Your task to perform on an android device: Go to notification settings Image 0: 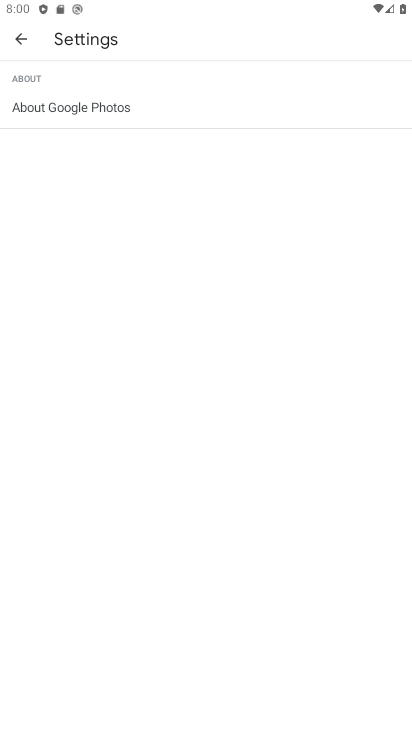
Step 0: press home button
Your task to perform on an android device: Go to notification settings Image 1: 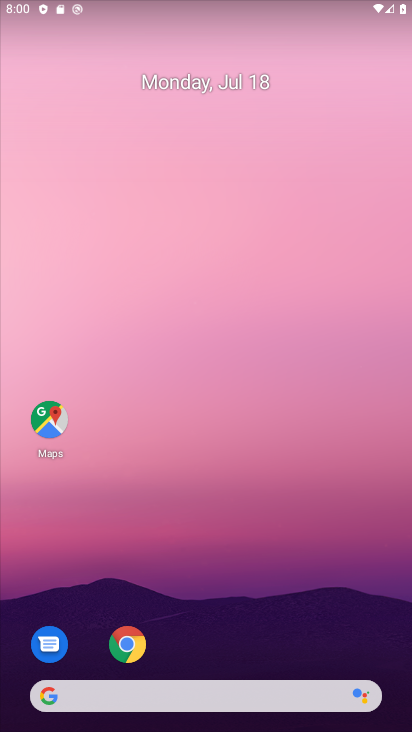
Step 1: drag from (194, 686) to (298, 271)
Your task to perform on an android device: Go to notification settings Image 2: 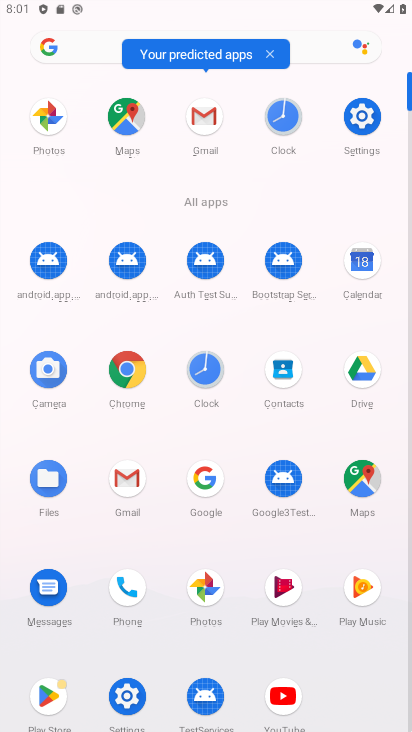
Step 2: click (360, 116)
Your task to perform on an android device: Go to notification settings Image 3: 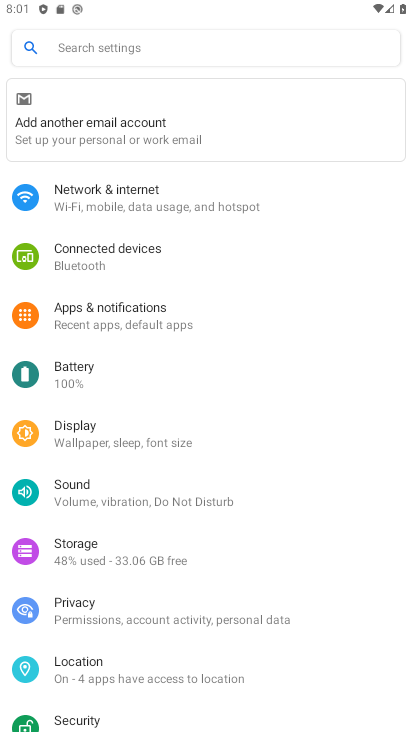
Step 3: click (118, 323)
Your task to perform on an android device: Go to notification settings Image 4: 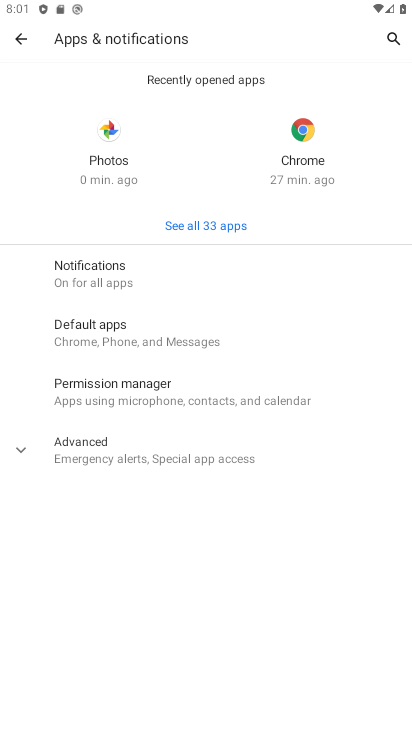
Step 4: click (96, 268)
Your task to perform on an android device: Go to notification settings Image 5: 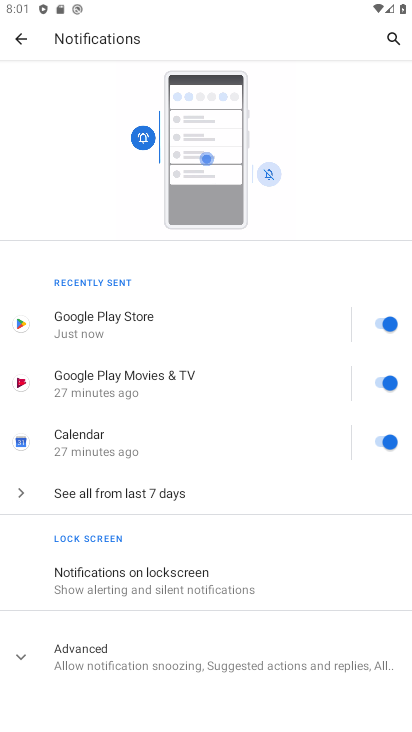
Step 5: task complete